Your task to perform on an android device: Open Youtube and go to "Your channel" Image 0: 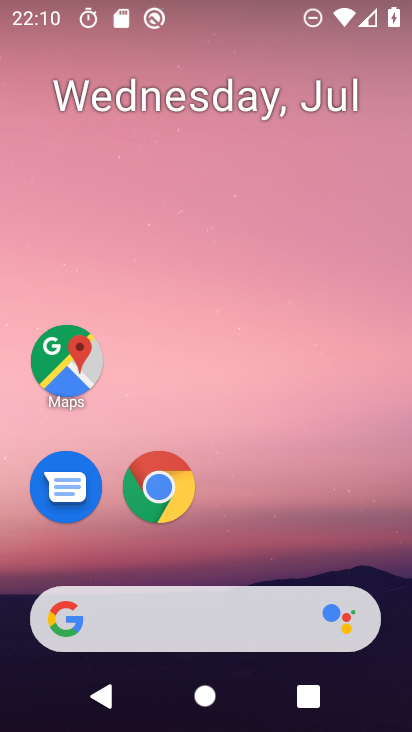
Step 0: drag from (358, 534) to (369, 130)
Your task to perform on an android device: Open Youtube and go to "Your channel" Image 1: 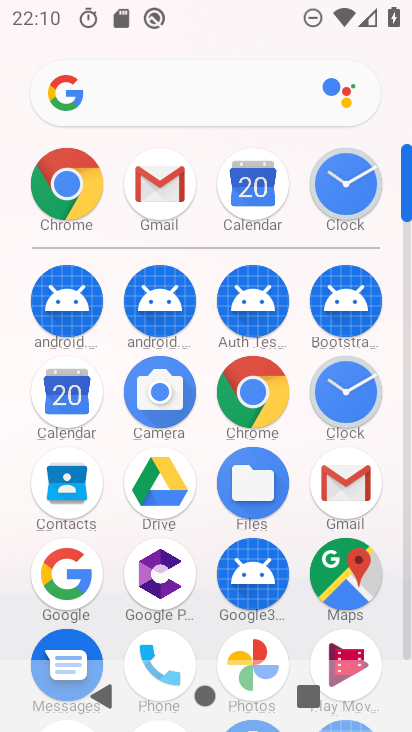
Step 1: drag from (393, 609) to (396, 429)
Your task to perform on an android device: Open Youtube and go to "Your channel" Image 2: 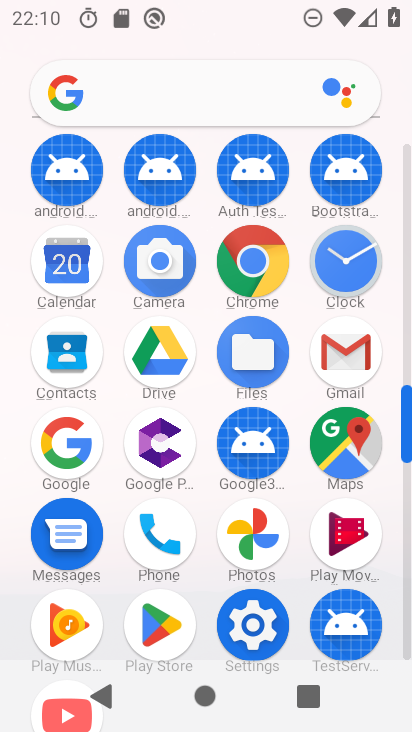
Step 2: drag from (393, 615) to (410, 395)
Your task to perform on an android device: Open Youtube and go to "Your channel" Image 3: 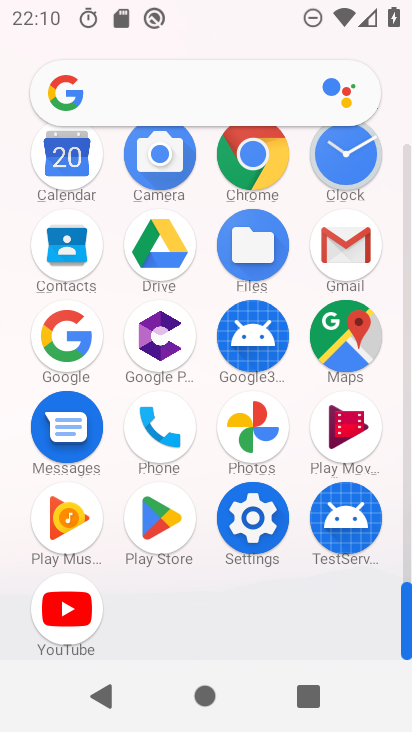
Step 3: click (72, 610)
Your task to perform on an android device: Open Youtube and go to "Your channel" Image 4: 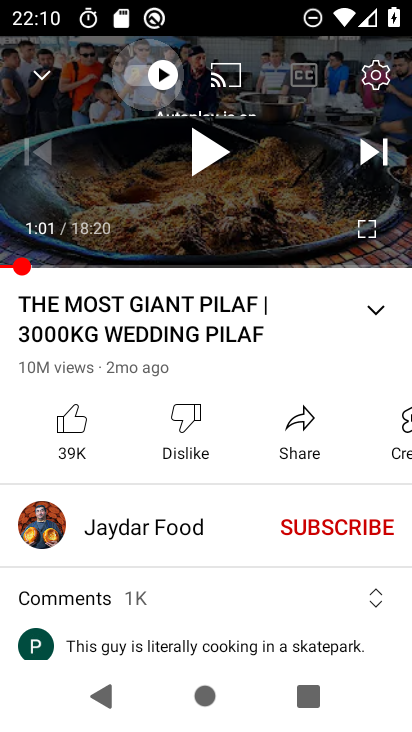
Step 4: press back button
Your task to perform on an android device: Open Youtube and go to "Your channel" Image 5: 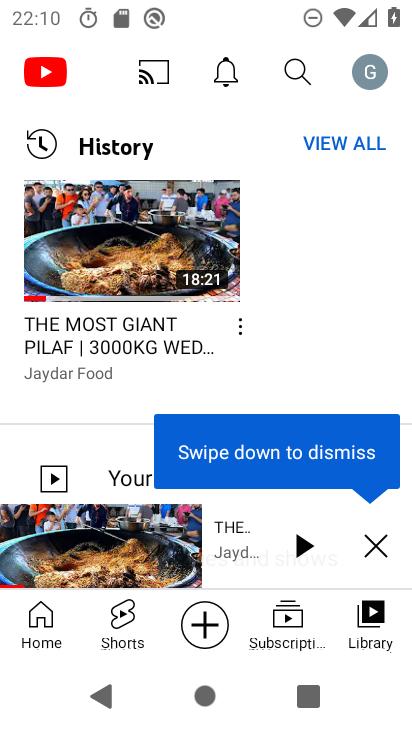
Step 5: click (371, 74)
Your task to perform on an android device: Open Youtube and go to "Your channel" Image 6: 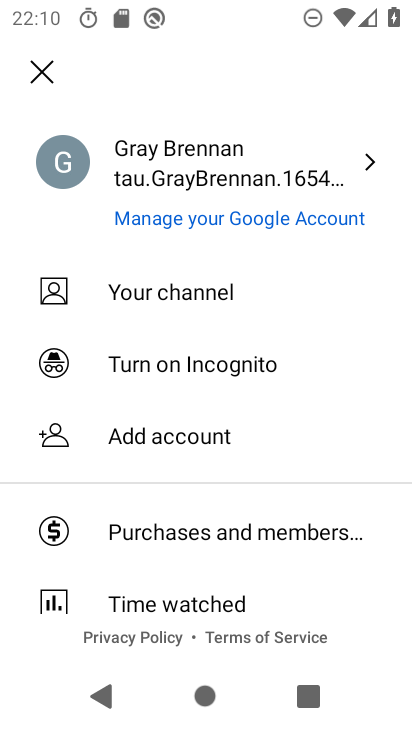
Step 6: click (281, 297)
Your task to perform on an android device: Open Youtube and go to "Your channel" Image 7: 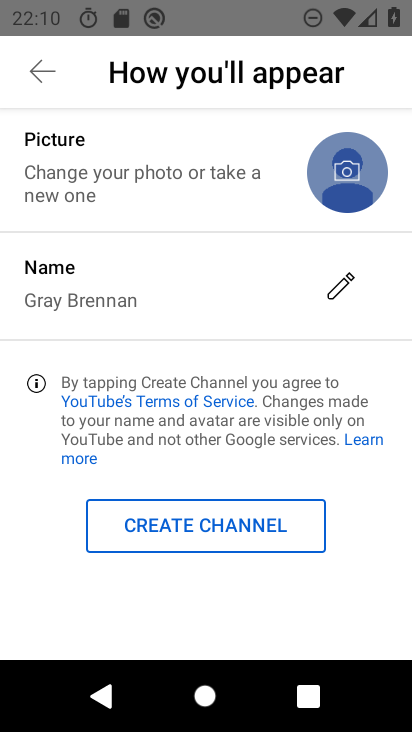
Step 7: task complete